Your task to perform on an android device: delete browsing data in the chrome app Image 0: 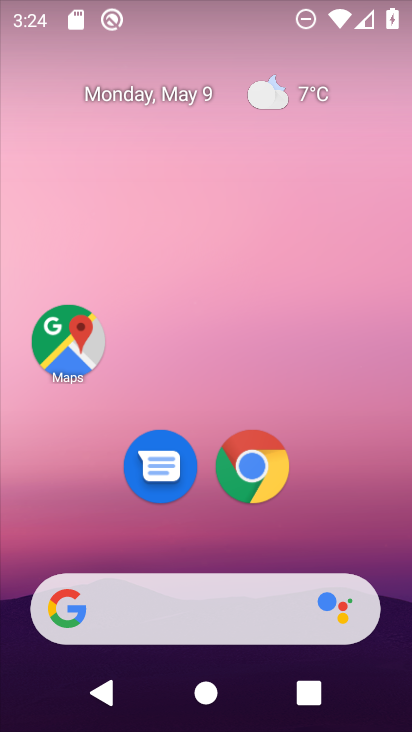
Step 0: drag from (208, 545) to (314, 74)
Your task to perform on an android device: delete browsing data in the chrome app Image 1: 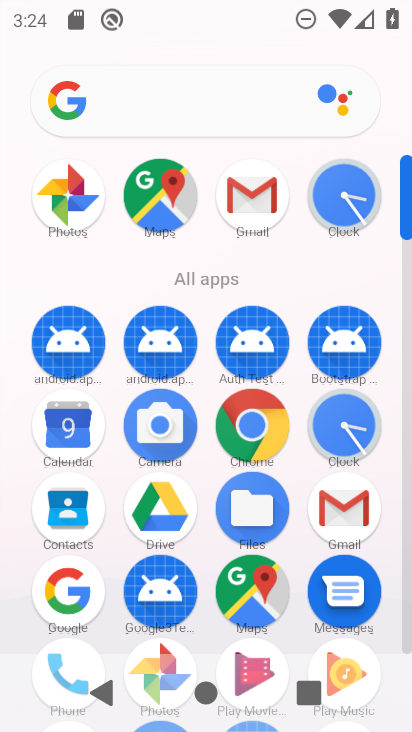
Step 1: click (231, 433)
Your task to perform on an android device: delete browsing data in the chrome app Image 2: 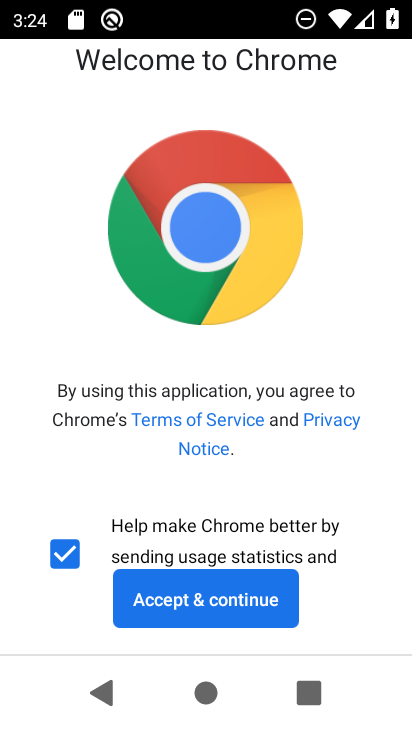
Step 2: click (226, 588)
Your task to perform on an android device: delete browsing data in the chrome app Image 3: 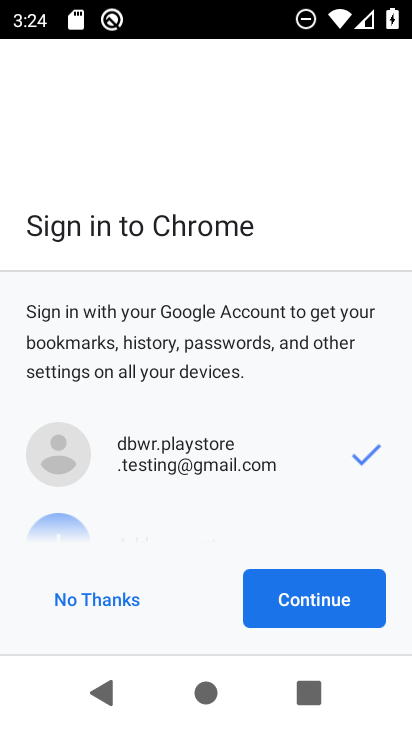
Step 3: click (119, 596)
Your task to perform on an android device: delete browsing data in the chrome app Image 4: 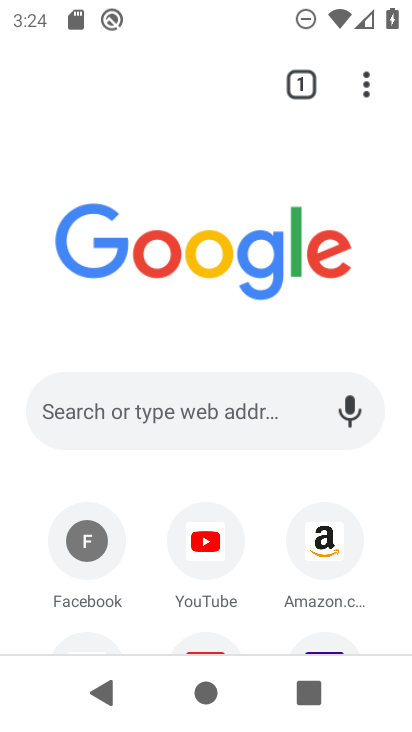
Step 4: click (359, 88)
Your task to perform on an android device: delete browsing data in the chrome app Image 5: 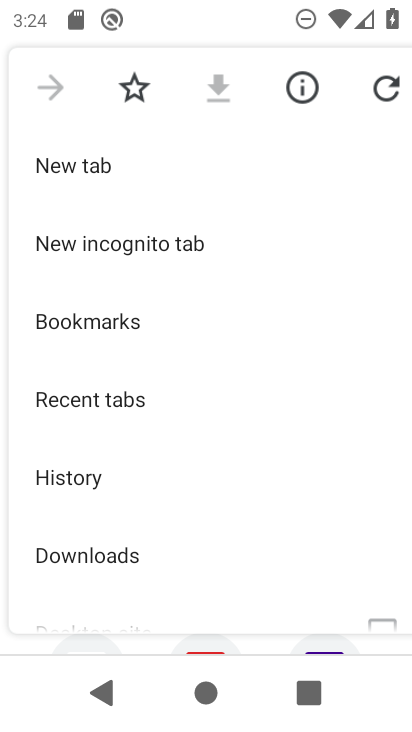
Step 5: click (89, 482)
Your task to perform on an android device: delete browsing data in the chrome app Image 6: 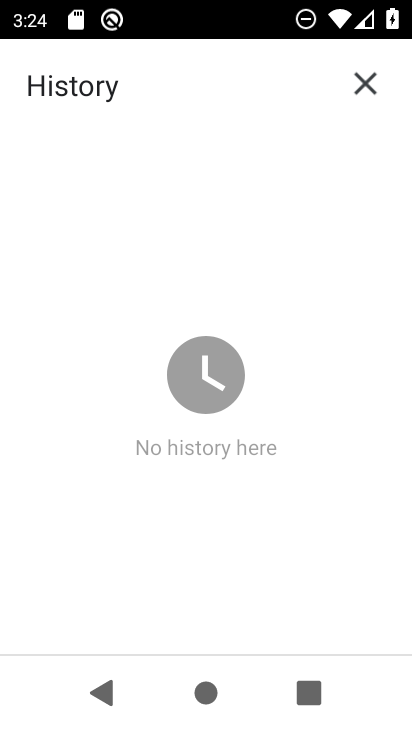
Step 6: task complete